Your task to perform on an android device: turn on notifications settings in the gmail app Image 0: 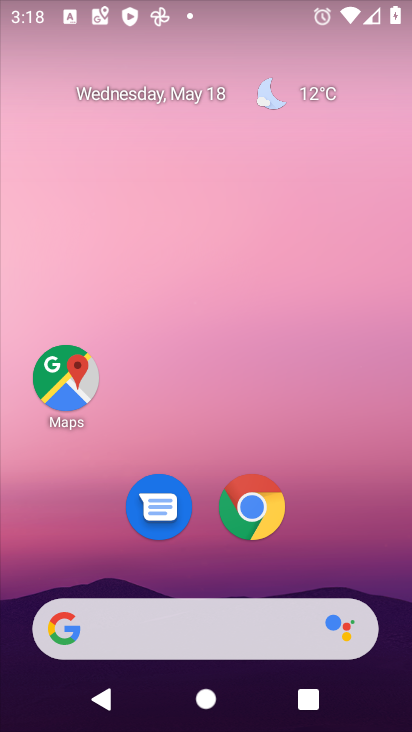
Step 0: drag from (398, 620) to (319, 122)
Your task to perform on an android device: turn on notifications settings in the gmail app Image 1: 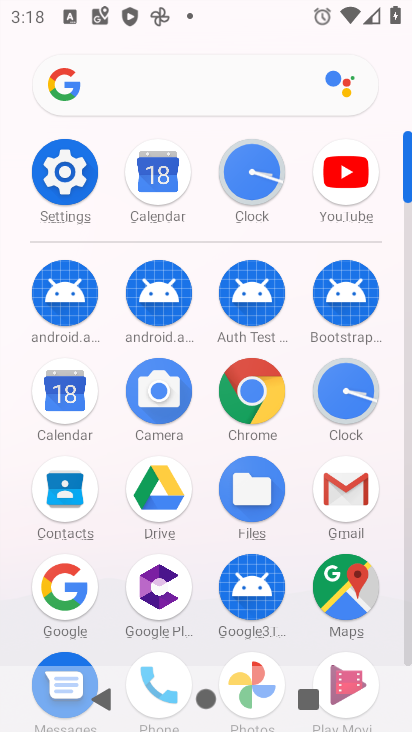
Step 1: click (406, 653)
Your task to perform on an android device: turn on notifications settings in the gmail app Image 2: 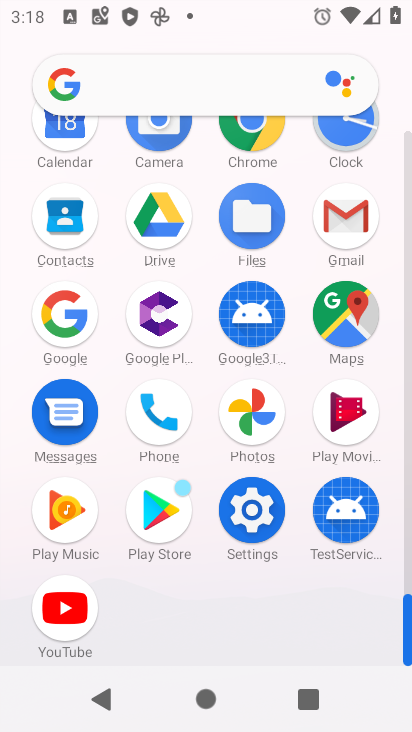
Step 2: click (344, 211)
Your task to perform on an android device: turn on notifications settings in the gmail app Image 3: 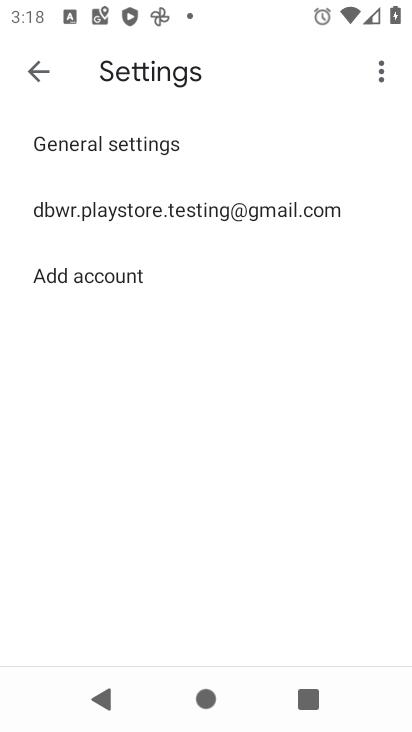
Step 3: click (137, 203)
Your task to perform on an android device: turn on notifications settings in the gmail app Image 4: 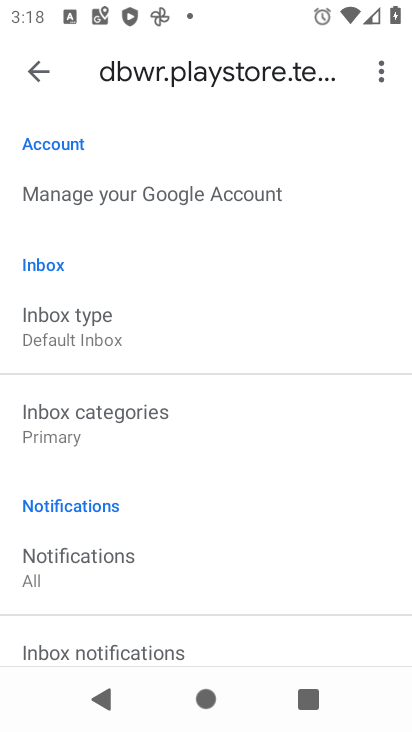
Step 4: drag from (201, 543) to (201, 145)
Your task to perform on an android device: turn on notifications settings in the gmail app Image 5: 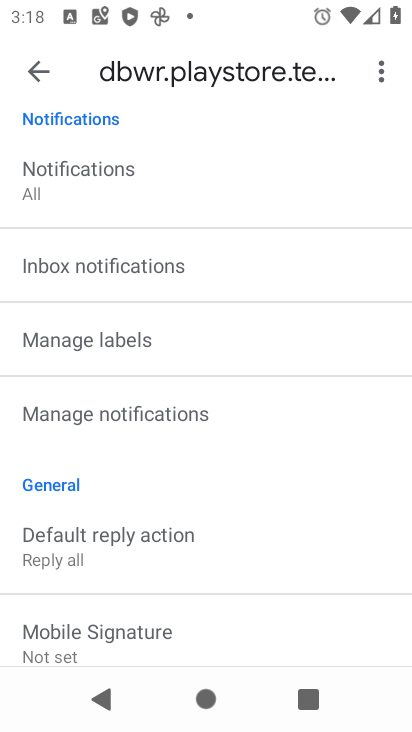
Step 5: click (98, 407)
Your task to perform on an android device: turn on notifications settings in the gmail app Image 6: 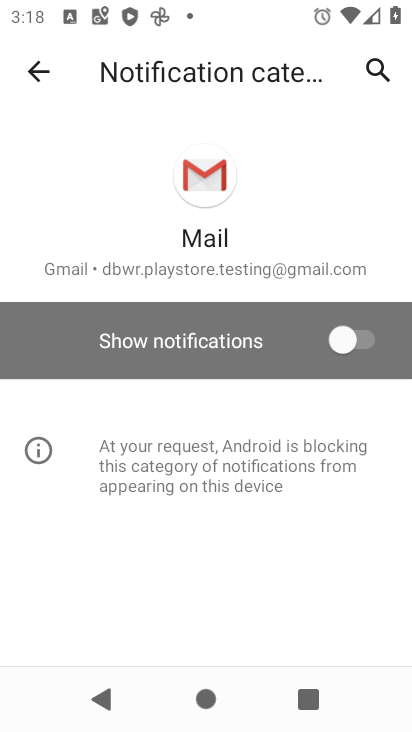
Step 6: click (359, 333)
Your task to perform on an android device: turn on notifications settings in the gmail app Image 7: 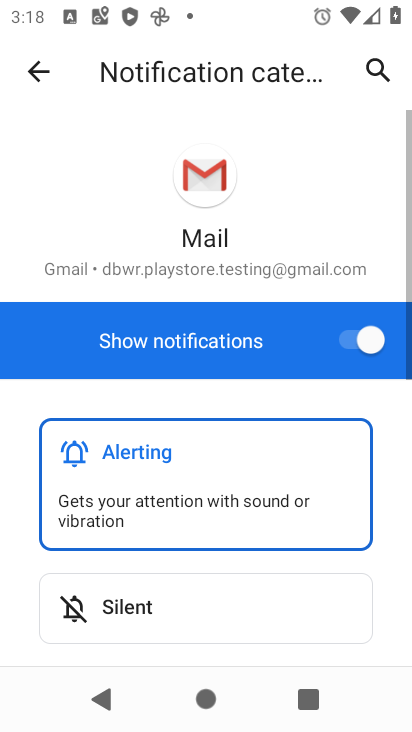
Step 7: task complete